Your task to perform on an android device: show emergency info Image 0: 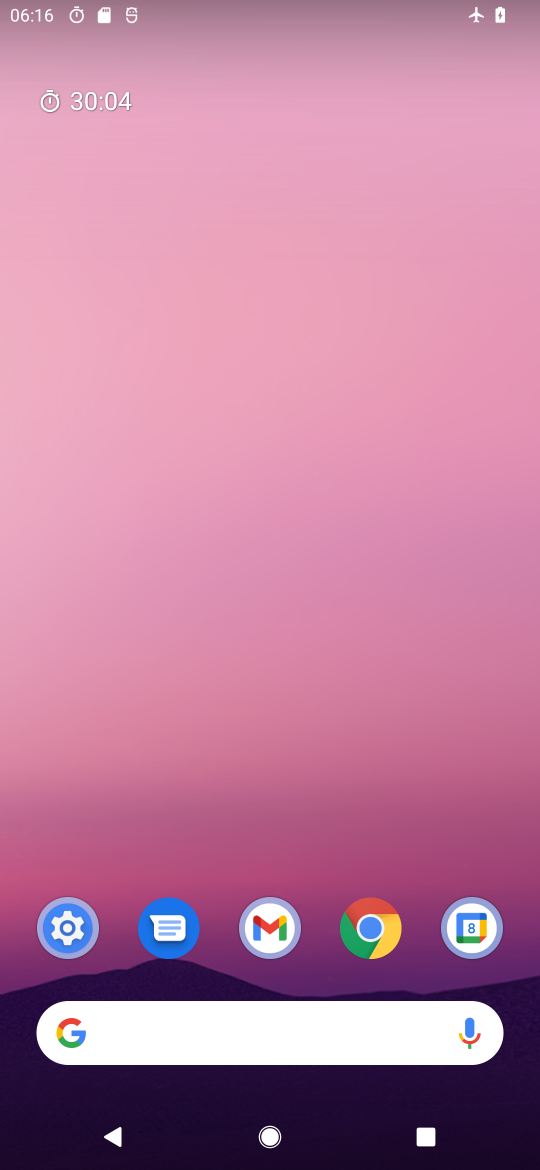
Step 0: drag from (284, 857) to (395, 2)
Your task to perform on an android device: show emergency info Image 1: 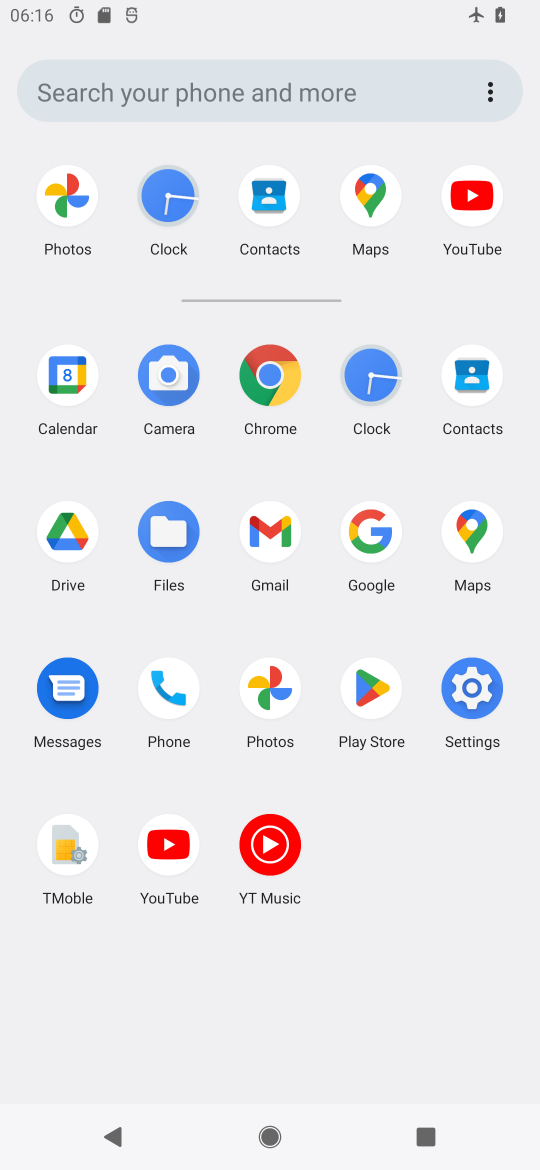
Step 1: click (487, 700)
Your task to perform on an android device: show emergency info Image 2: 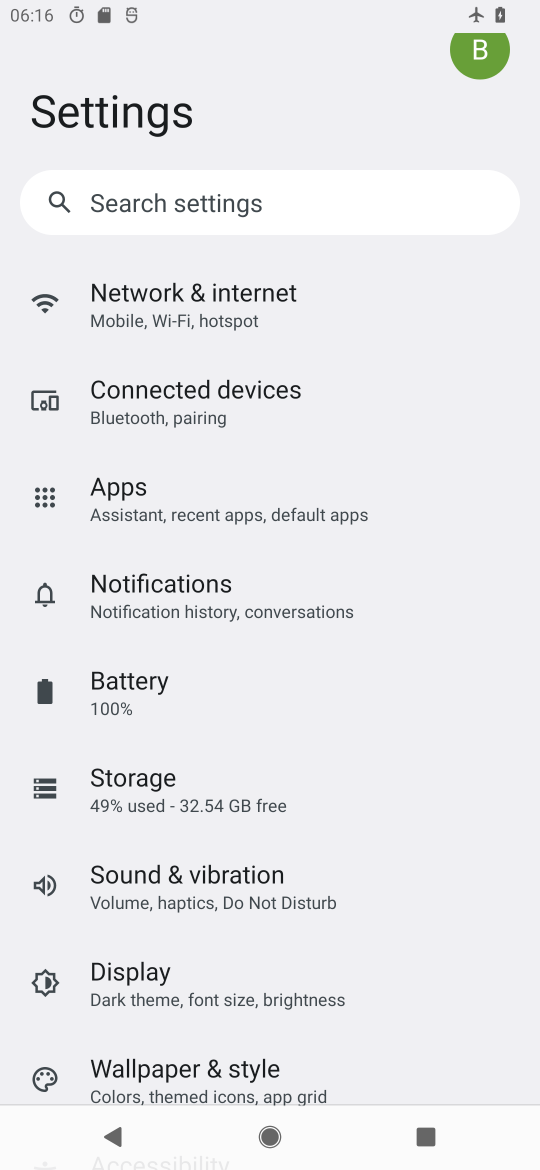
Step 2: drag from (218, 851) to (216, 652)
Your task to perform on an android device: show emergency info Image 3: 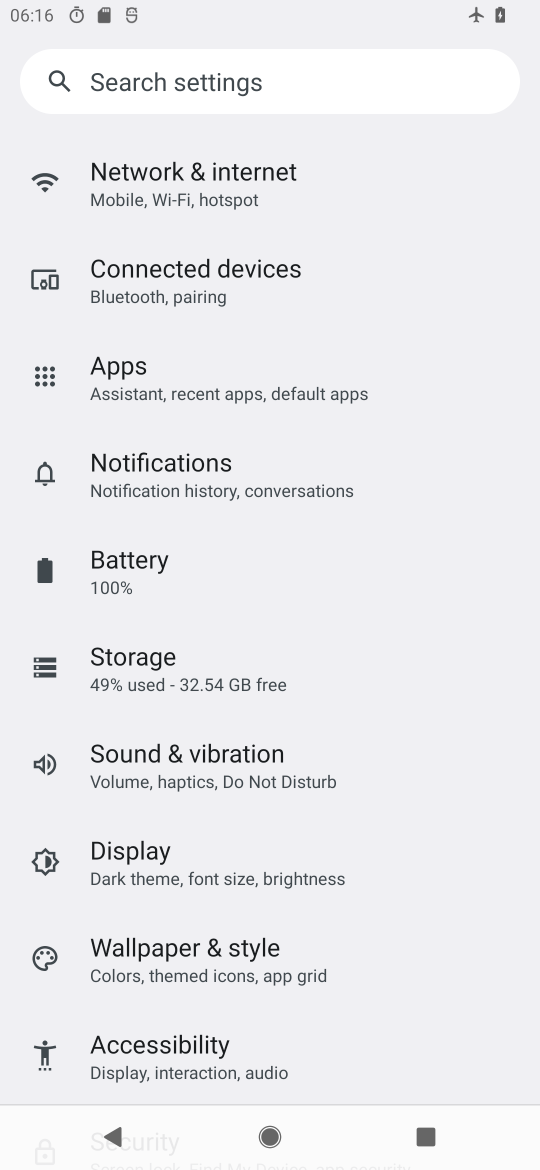
Step 3: drag from (271, 959) to (277, 214)
Your task to perform on an android device: show emergency info Image 4: 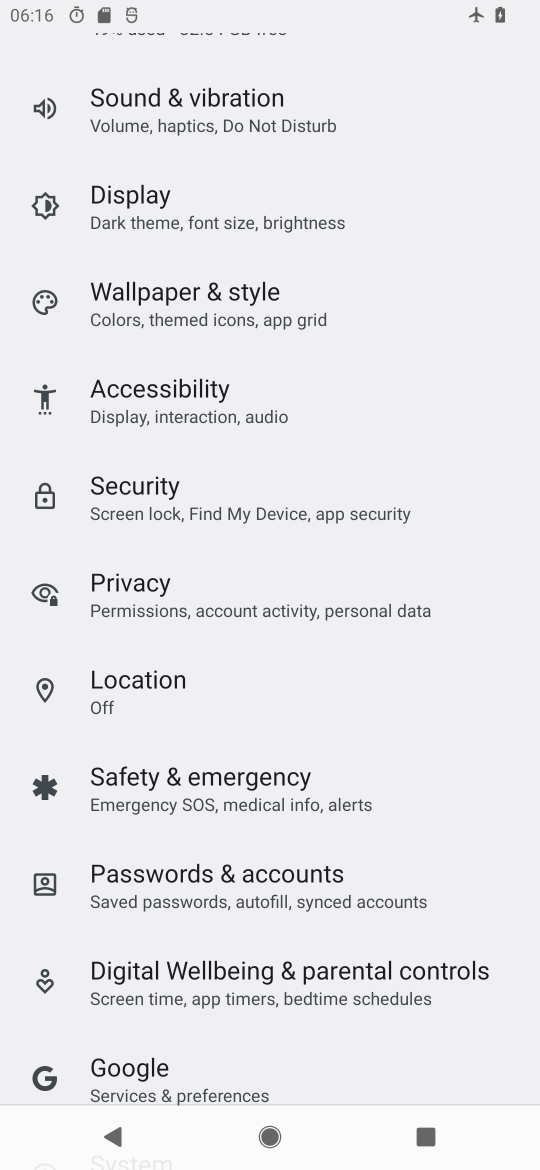
Step 4: drag from (223, 1089) to (319, 313)
Your task to perform on an android device: show emergency info Image 5: 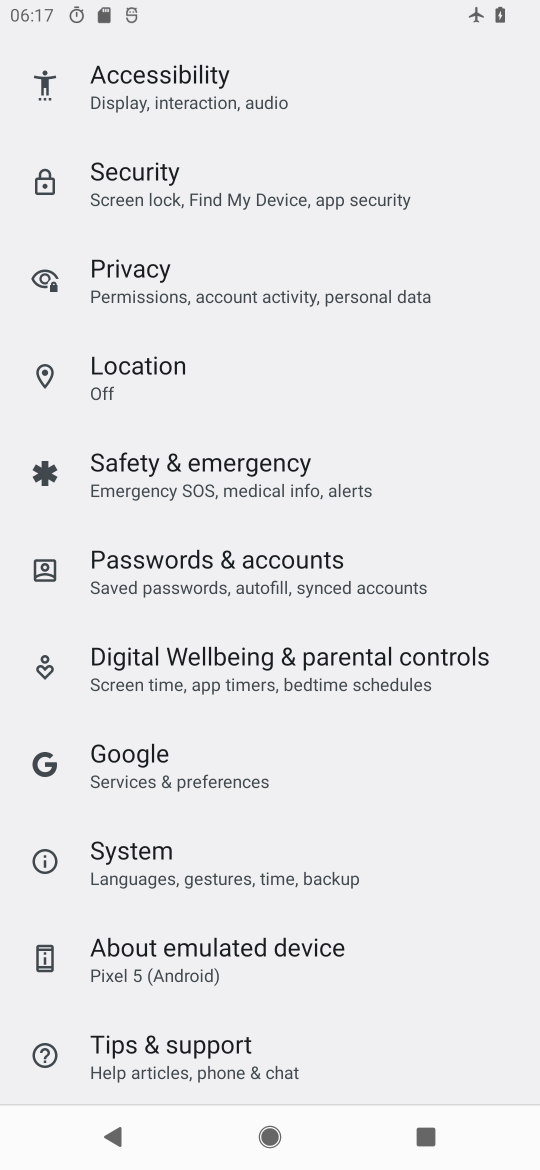
Step 5: drag from (241, 1003) to (320, 226)
Your task to perform on an android device: show emergency info Image 6: 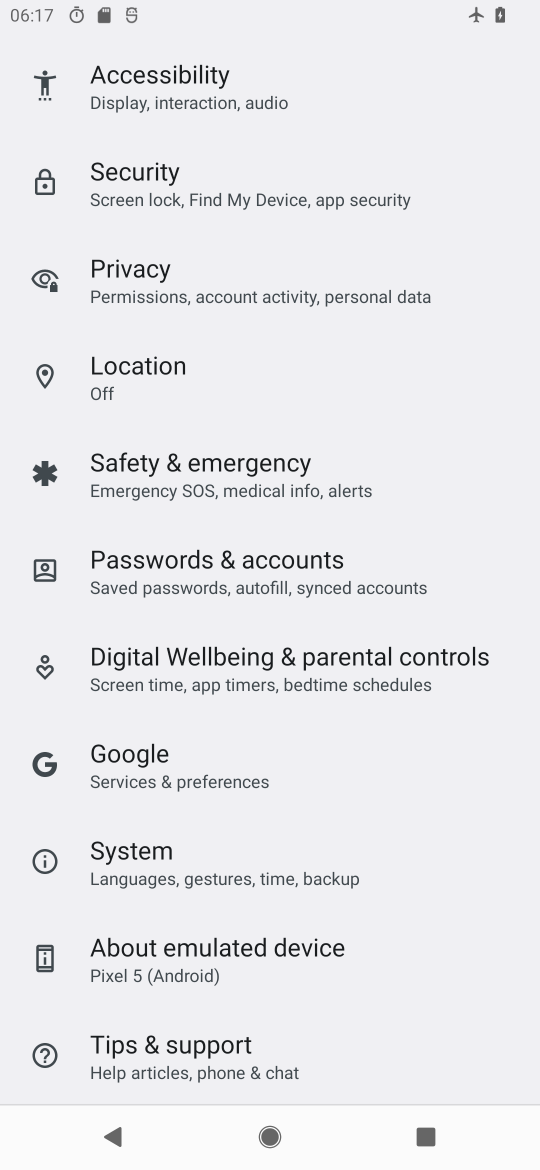
Step 6: click (198, 960)
Your task to perform on an android device: show emergency info Image 7: 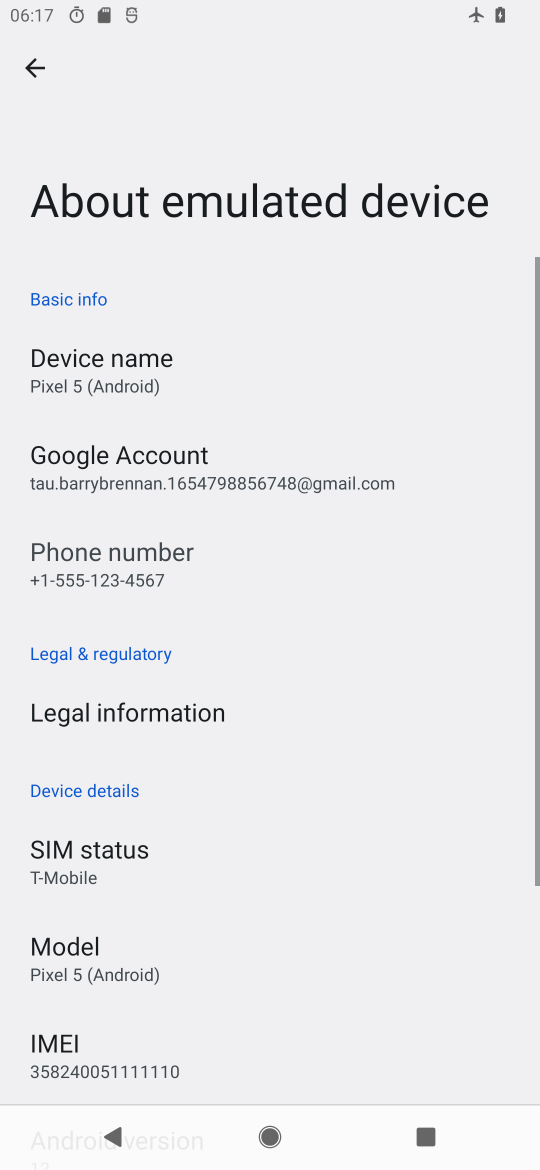
Step 7: task complete